Your task to perform on an android device: Open Youtube and go to "Your channel" Image 0: 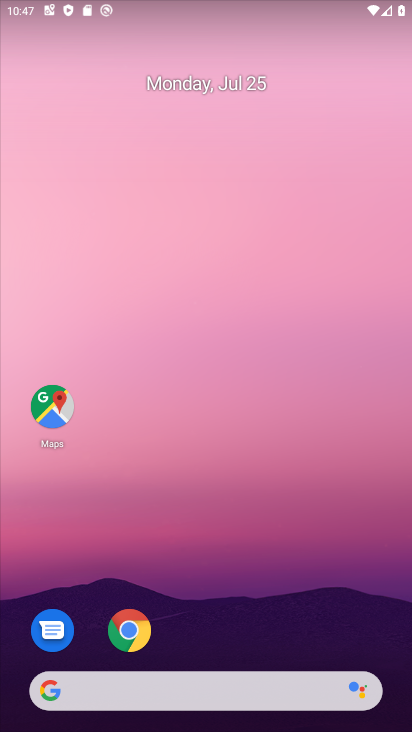
Step 0: drag from (288, 593) to (294, 99)
Your task to perform on an android device: Open Youtube and go to "Your channel" Image 1: 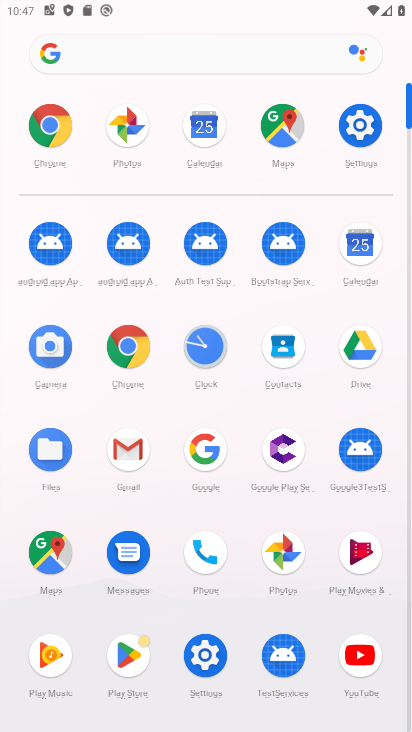
Step 1: click (360, 661)
Your task to perform on an android device: Open Youtube and go to "Your channel" Image 2: 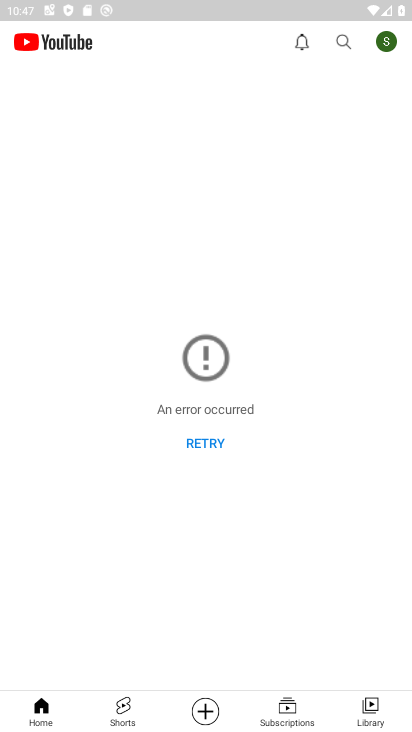
Step 2: click (386, 50)
Your task to perform on an android device: Open Youtube and go to "Your channel" Image 3: 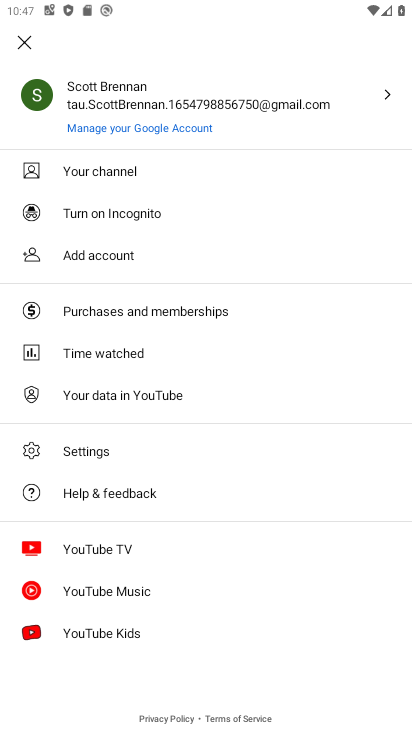
Step 3: click (137, 179)
Your task to perform on an android device: Open Youtube and go to "Your channel" Image 4: 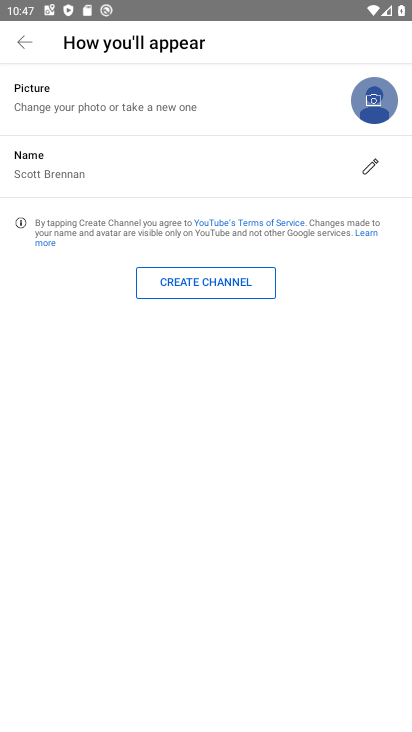
Step 4: task complete